Your task to perform on an android device: see sites visited before in the chrome app Image 0: 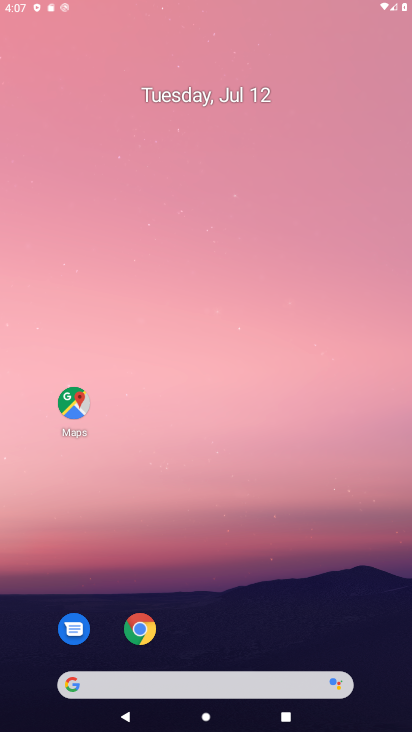
Step 0: press home button
Your task to perform on an android device: see sites visited before in the chrome app Image 1: 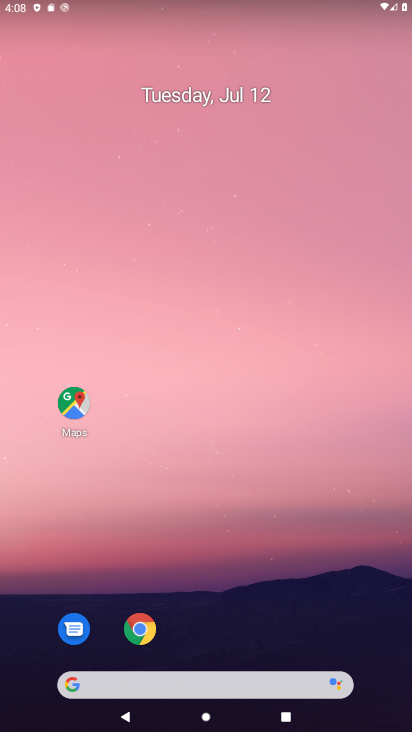
Step 1: drag from (273, 643) to (234, 90)
Your task to perform on an android device: see sites visited before in the chrome app Image 2: 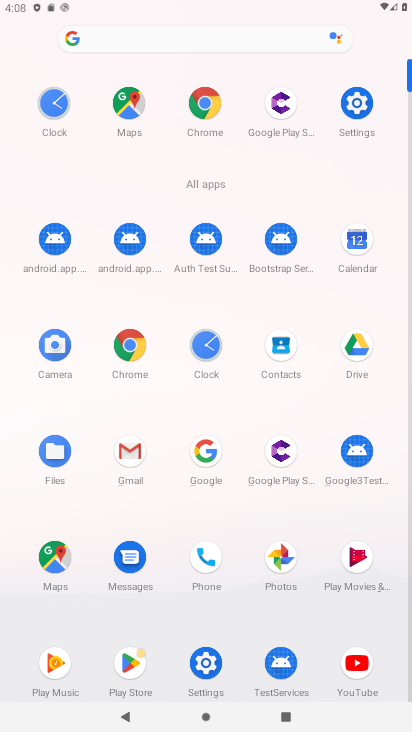
Step 2: click (126, 349)
Your task to perform on an android device: see sites visited before in the chrome app Image 3: 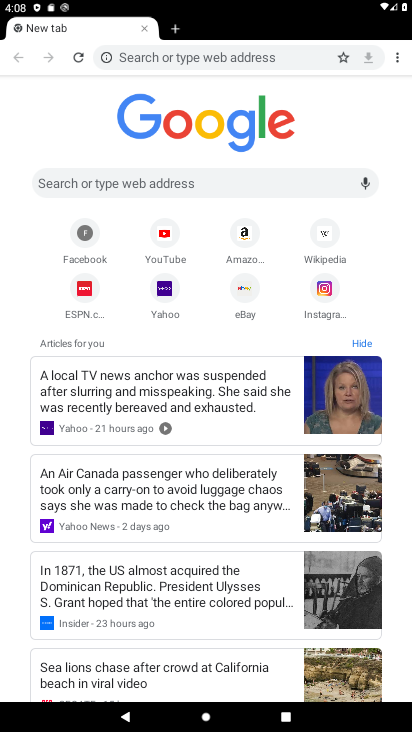
Step 3: task complete